Your task to perform on an android device: Open Maps and search for coffee Image 0: 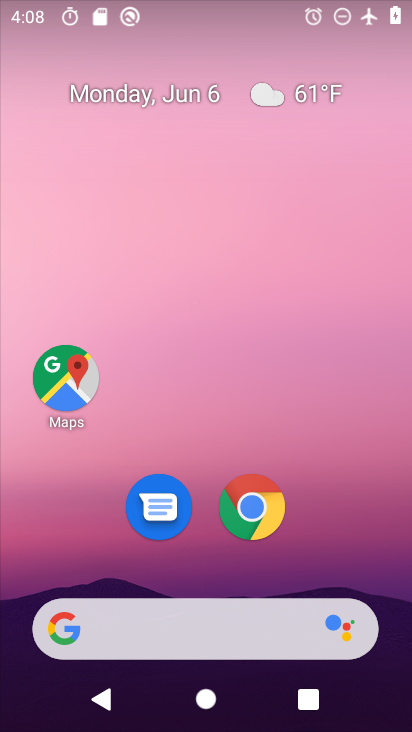
Step 0: click (83, 389)
Your task to perform on an android device: Open Maps and search for coffee Image 1: 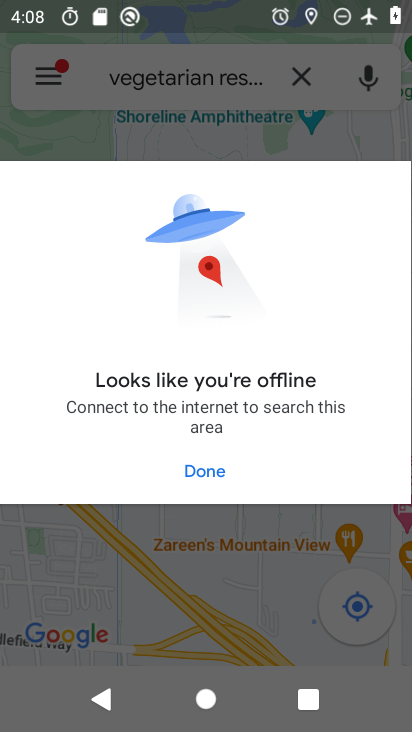
Step 1: task complete